Your task to perform on an android device: turn off notifications settings in the gmail app Image 0: 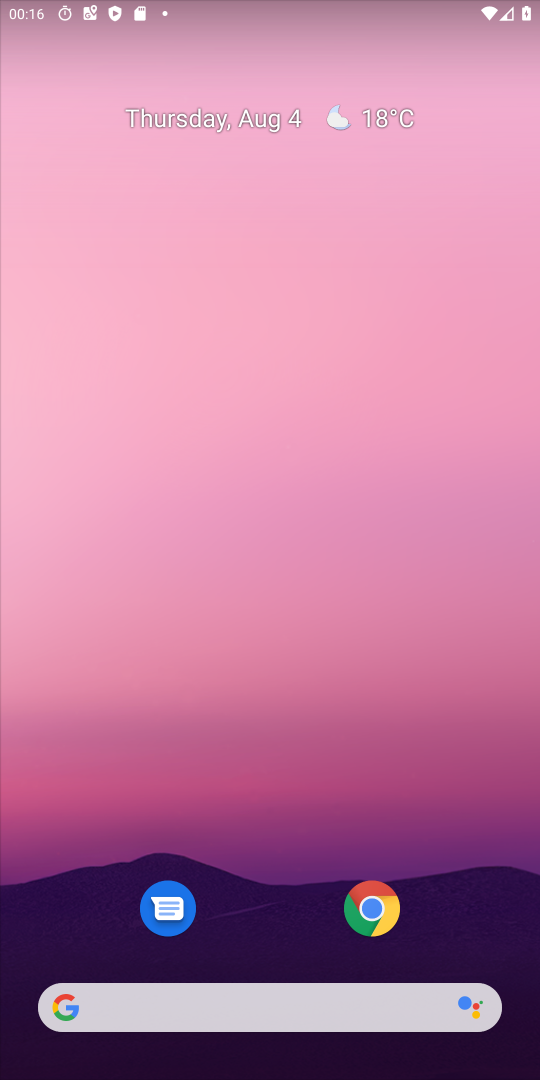
Step 0: press home button
Your task to perform on an android device: turn off notifications settings in the gmail app Image 1: 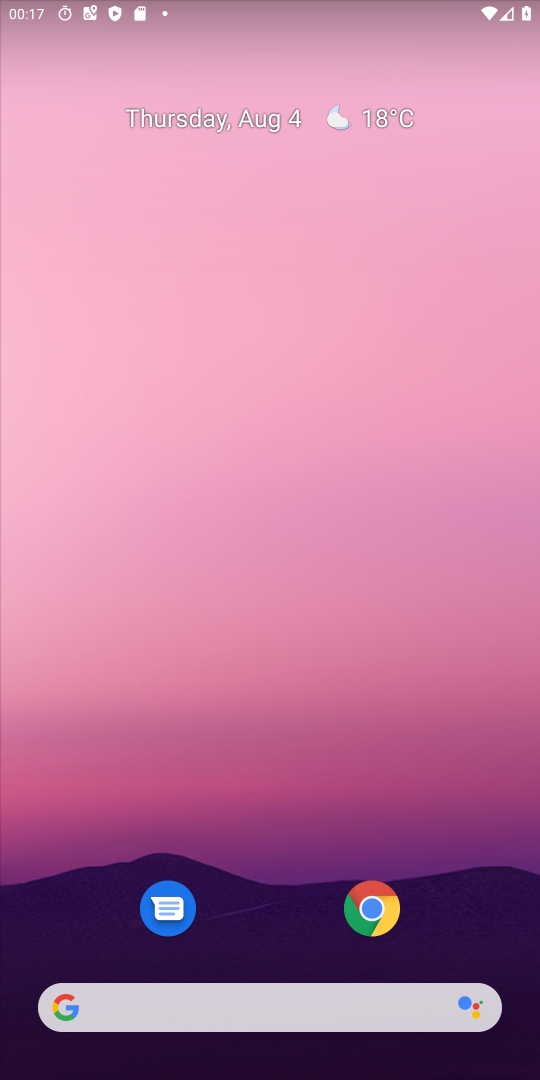
Step 1: drag from (313, 1030) to (242, 335)
Your task to perform on an android device: turn off notifications settings in the gmail app Image 2: 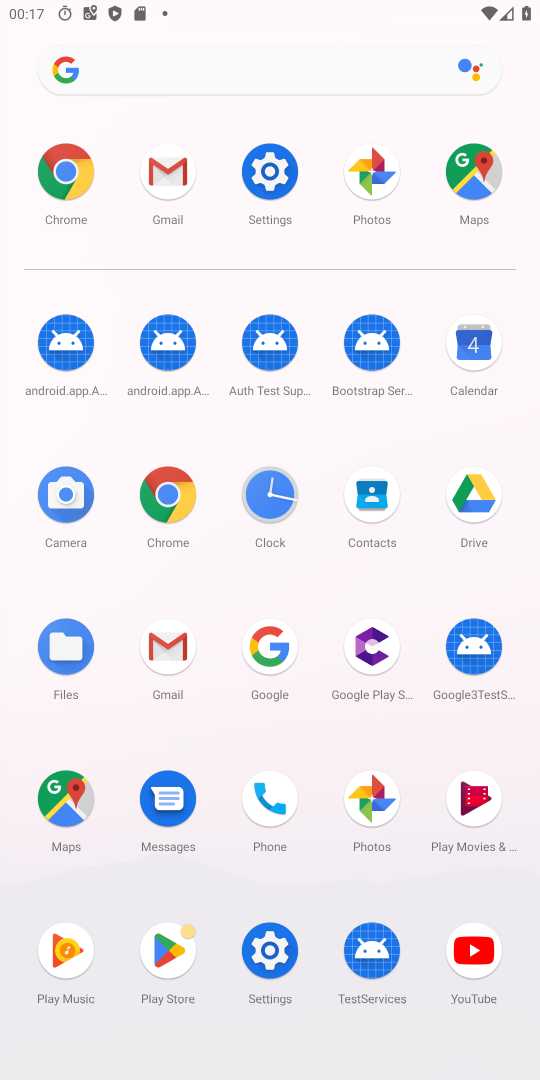
Step 2: click (156, 196)
Your task to perform on an android device: turn off notifications settings in the gmail app Image 3: 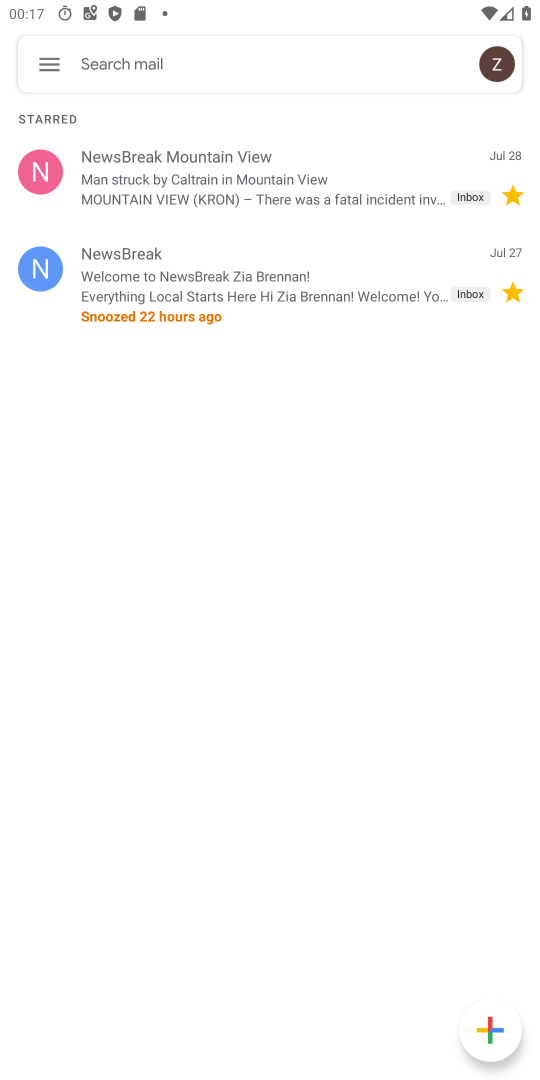
Step 3: click (61, 59)
Your task to perform on an android device: turn off notifications settings in the gmail app Image 4: 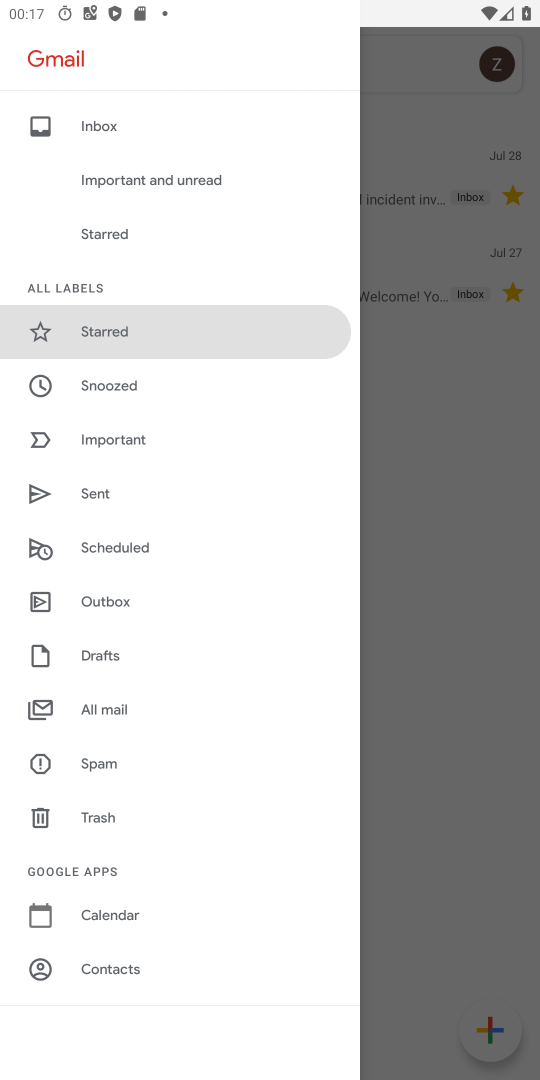
Step 4: drag from (139, 946) to (149, 795)
Your task to perform on an android device: turn off notifications settings in the gmail app Image 5: 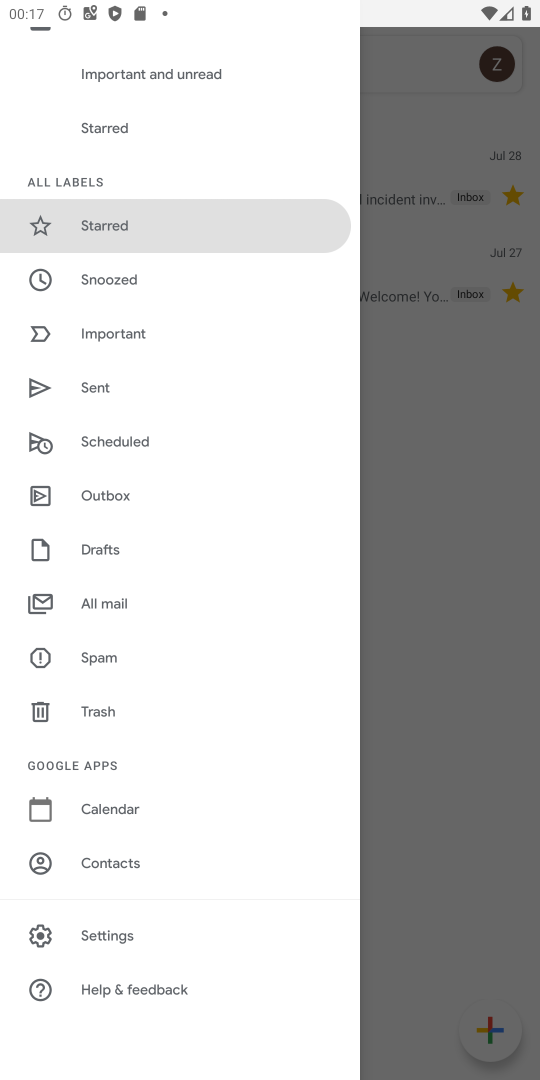
Step 5: click (122, 923)
Your task to perform on an android device: turn off notifications settings in the gmail app Image 6: 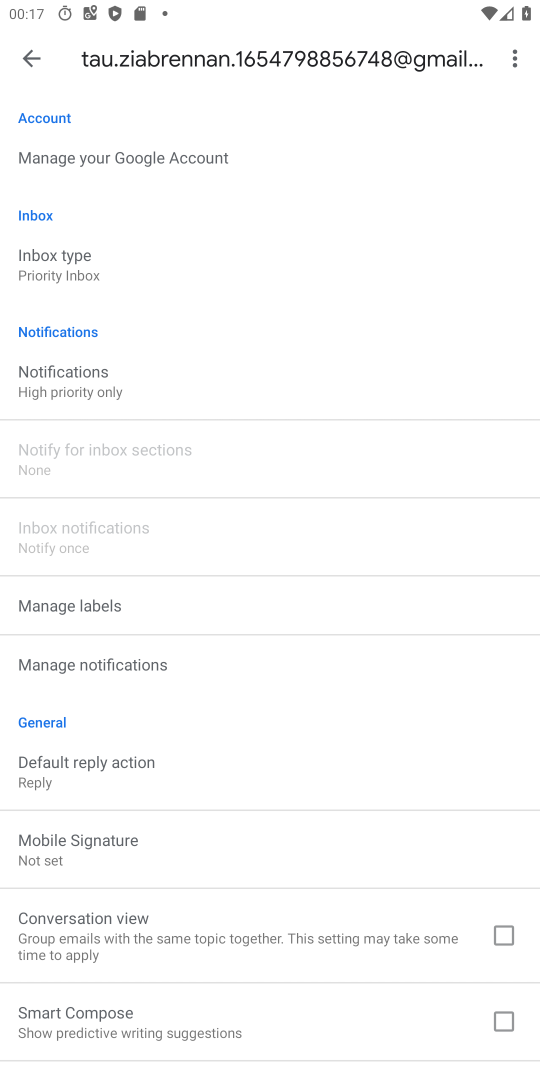
Step 6: click (115, 378)
Your task to perform on an android device: turn off notifications settings in the gmail app Image 7: 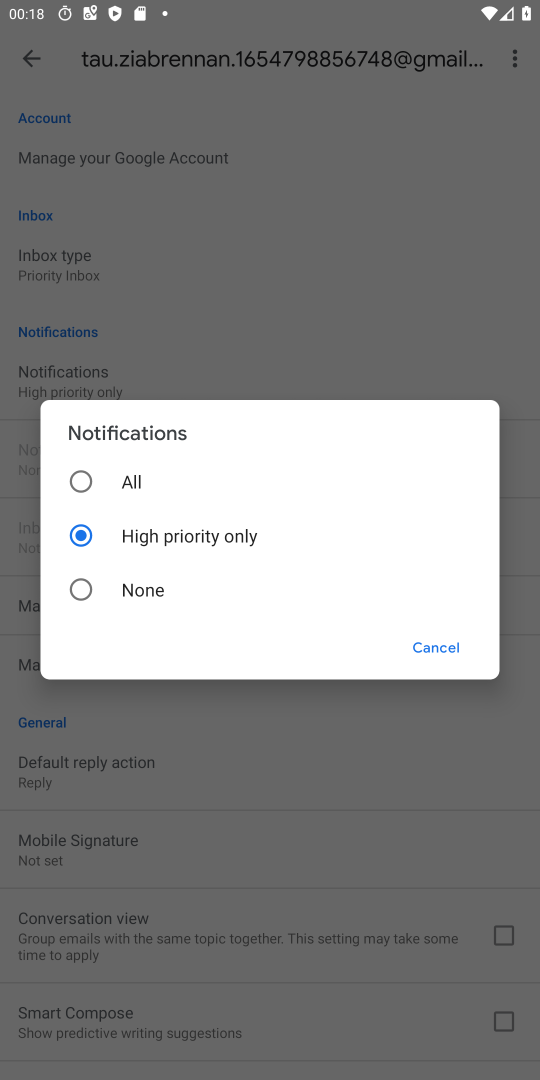
Step 7: click (138, 590)
Your task to perform on an android device: turn off notifications settings in the gmail app Image 8: 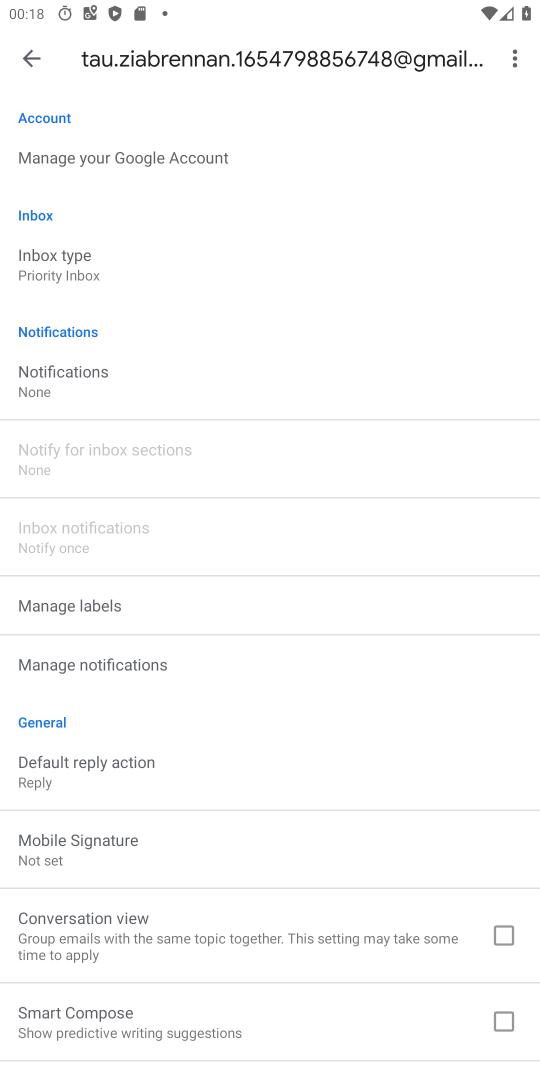
Step 8: task complete